Your task to perform on an android device: Open Youtube and go to the subscriptions tab Image 0: 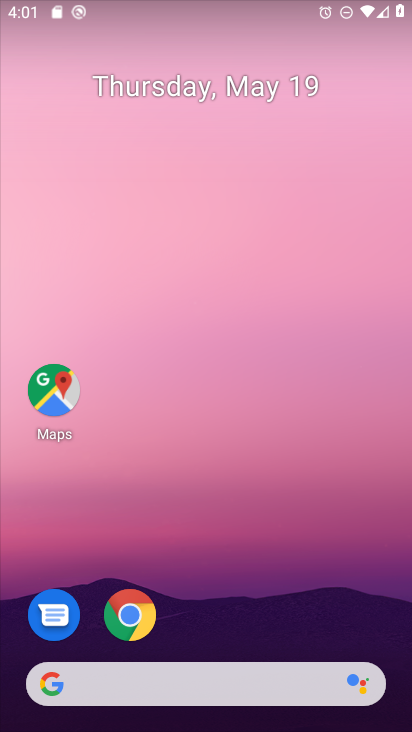
Step 0: drag from (256, 600) to (199, 20)
Your task to perform on an android device: Open Youtube and go to the subscriptions tab Image 1: 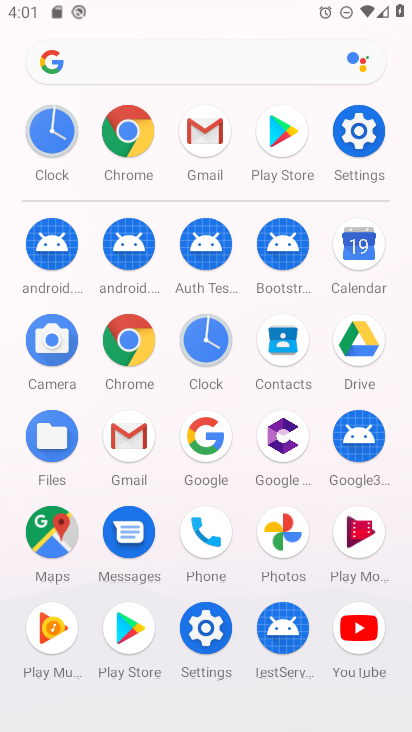
Step 1: click (360, 645)
Your task to perform on an android device: Open Youtube and go to the subscriptions tab Image 2: 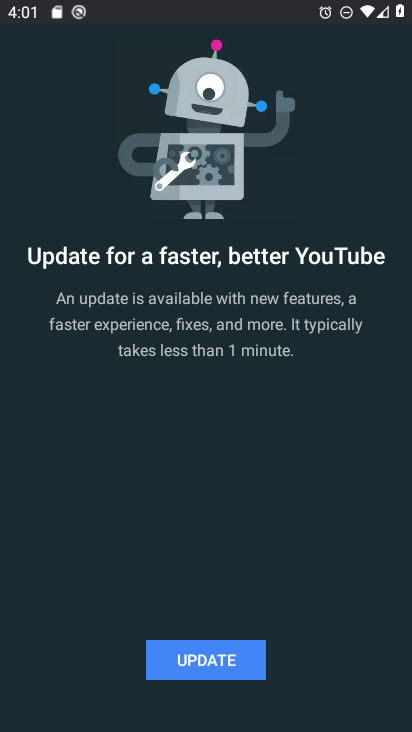
Step 2: click (247, 654)
Your task to perform on an android device: Open Youtube and go to the subscriptions tab Image 3: 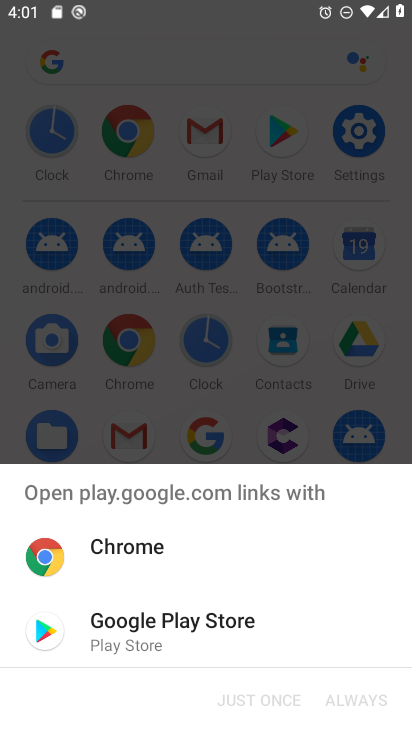
Step 3: click (298, 640)
Your task to perform on an android device: Open Youtube and go to the subscriptions tab Image 4: 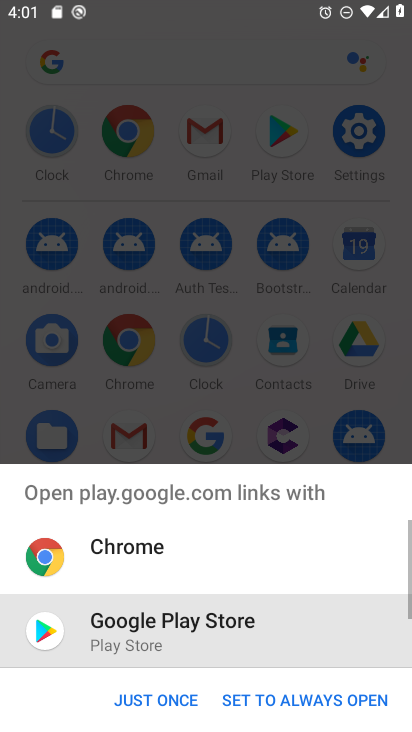
Step 4: click (179, 685)
Your task to perform on an android device: Open Youtube and go to the subscriptions tab Image 5: 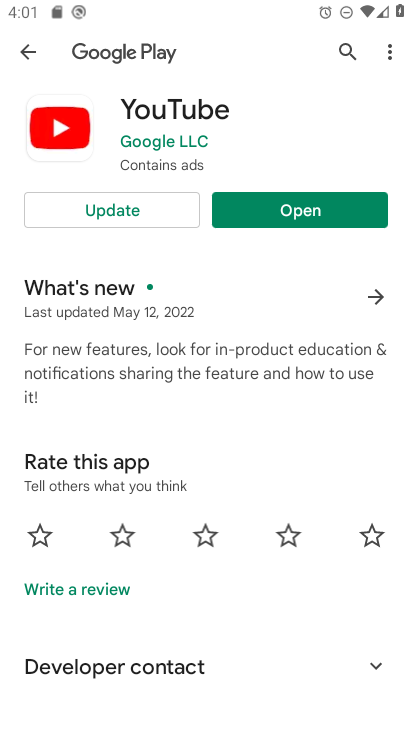
Step 5: click (121, 207)
Your task to perform on an android device: Open Youtube and go to the subscriptions tab Image 6: 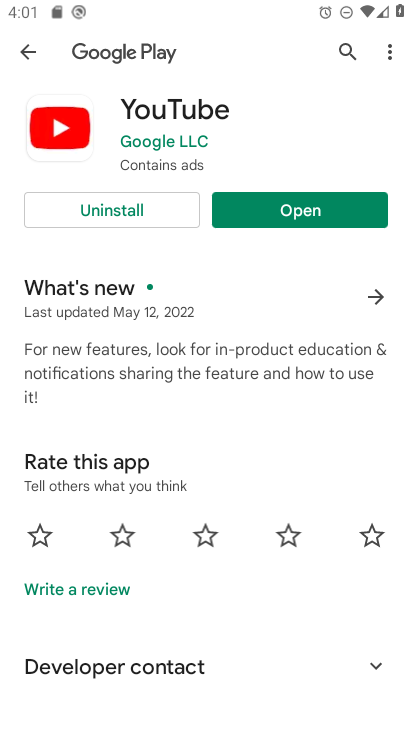
Step 6: click (238, 215)
Your task to perform on an android device: Open Youtube and go to the subscriptions tab Image 7: 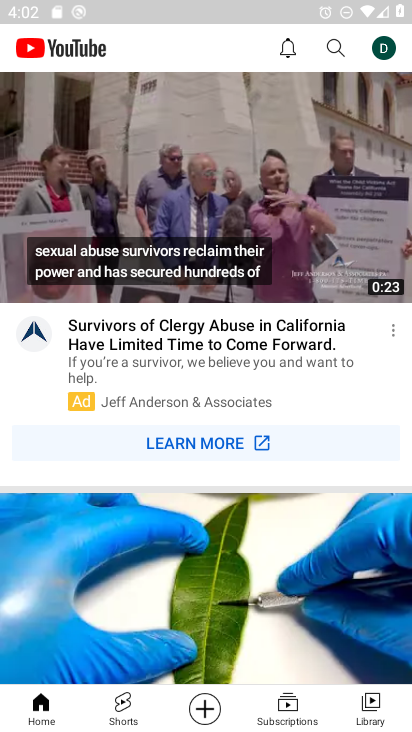
Step 7: click (305, 719)
Your task to perform on an android device: Open Youtube and go to the subscriptions tab Image 8: 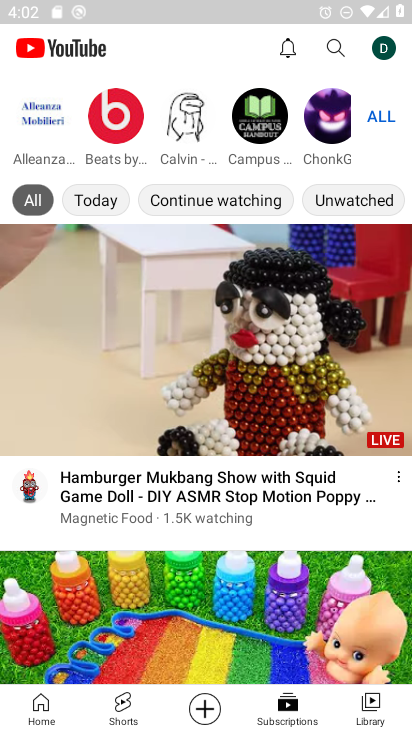
Step 8: task complete